Your task to perform on an android device: set an alarm Image 0: 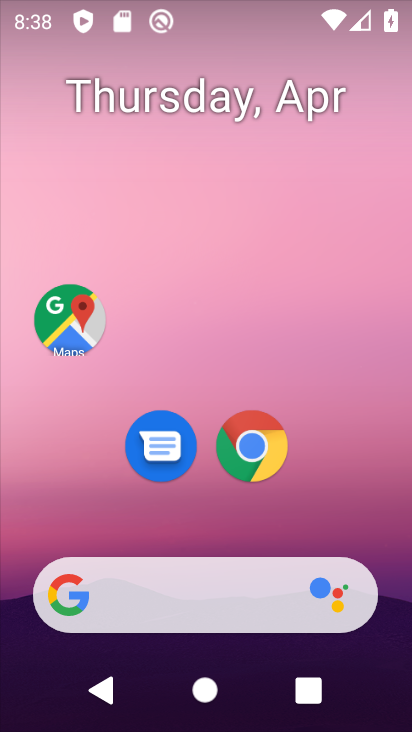
Step 0: drag from (374, 513) to (374, 142)
Your task to perform on an android device: set an alarm Image 1: 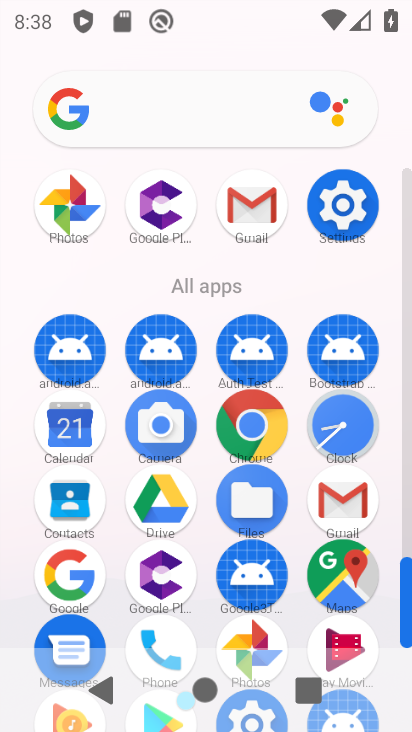
Step 1: click (331, 437)
Your task to perform on an android device: set an alarm Image 2: 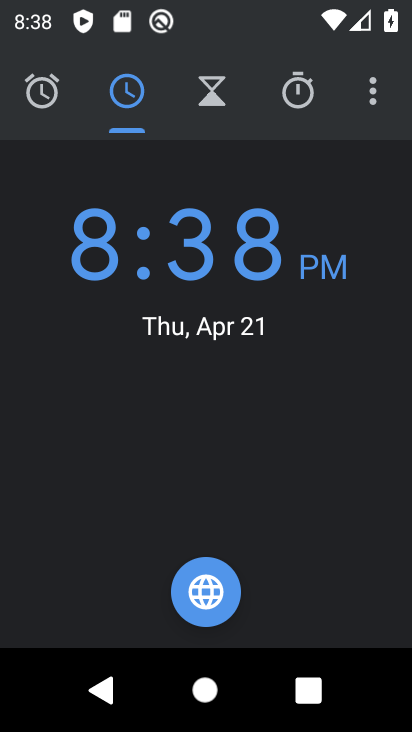
Step 2: click (45, 97)
Your task to perform on an android device: set an alarm Image 3: 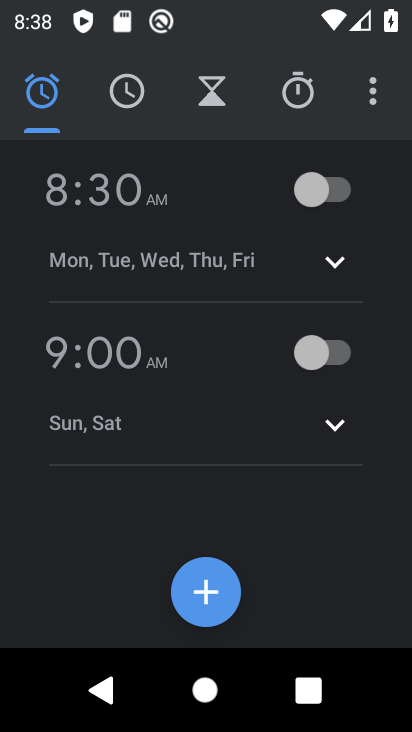
Step 3: click (215, 592)
Your task to perform on an android device: set an alarm Image 4: 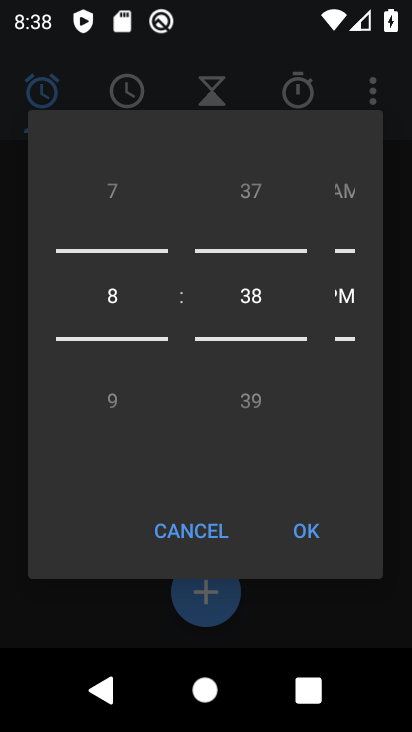
Step 4: click (305, 536)
Your task to perform on an android device: set an alarm Image 5: 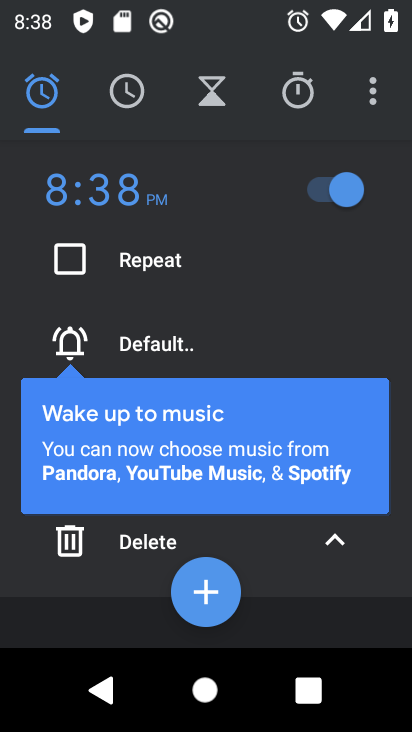
Step 5: task complete